Your task to perform on an android device: How much does a 2 bedroom apartment rent for in Miami? Image 0: 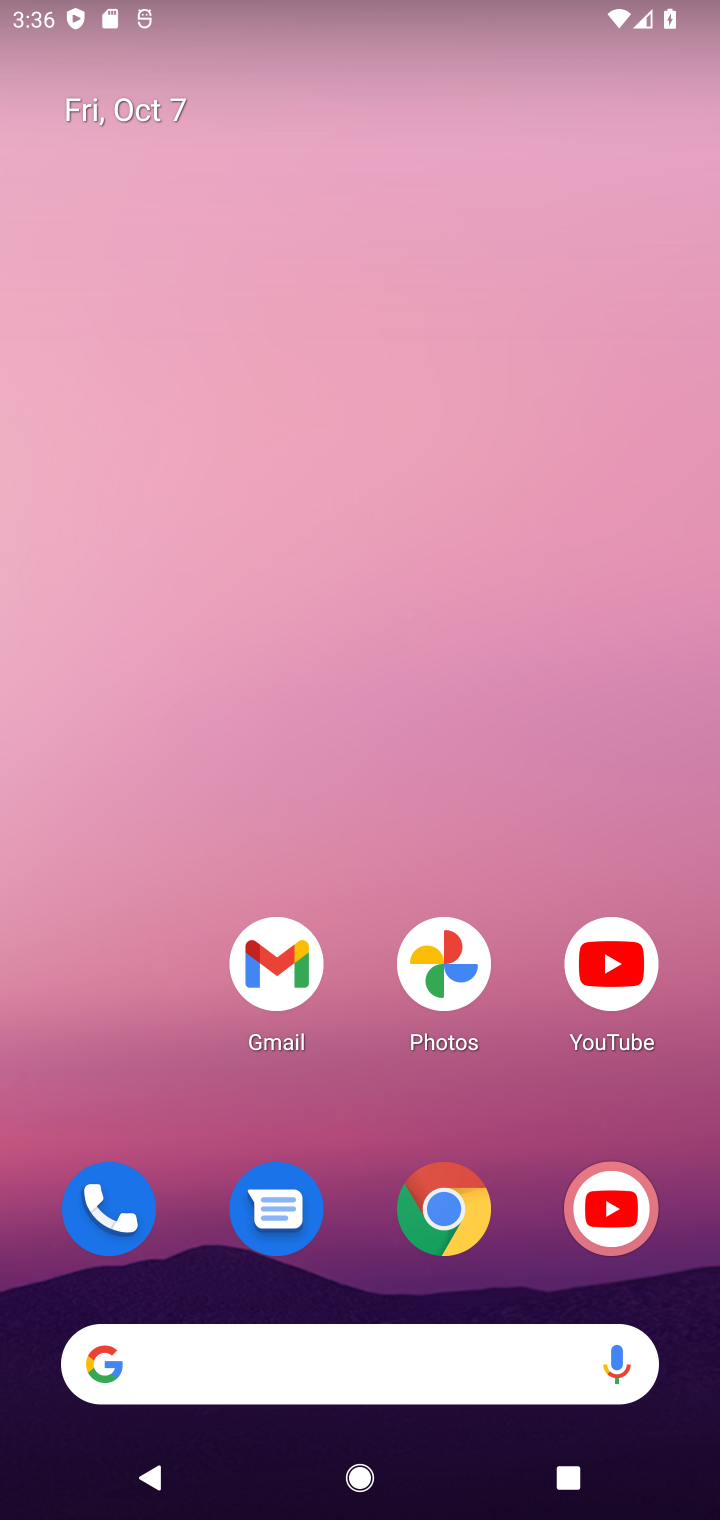
Step 0: press home button
Your task to perform on an android device: How much does a 2 bedroom apartment rent for in Miami? Image 1: 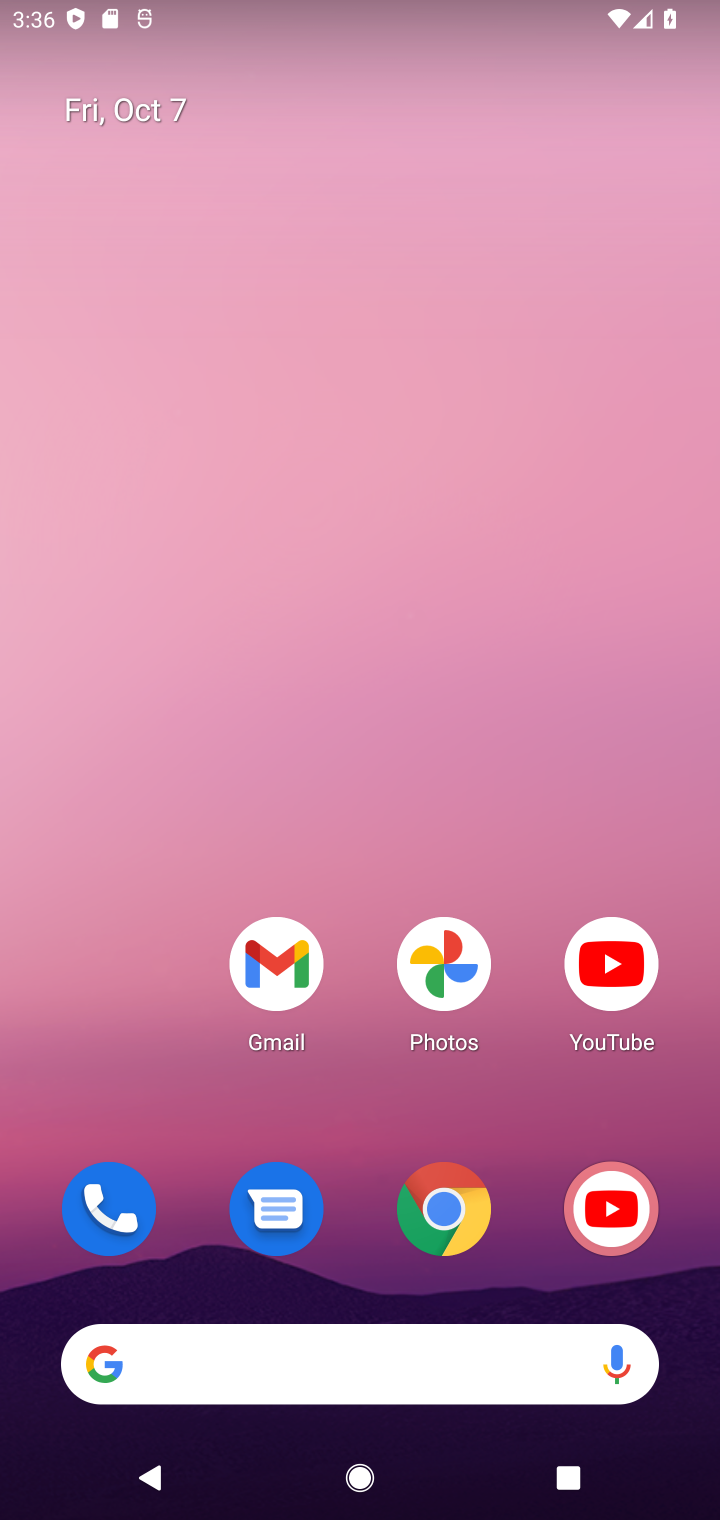
Step 1: click (418, 1371)
Your task to perform on an android device: How much does a 2 bedroom apartment rent for in Miami? Image 2: 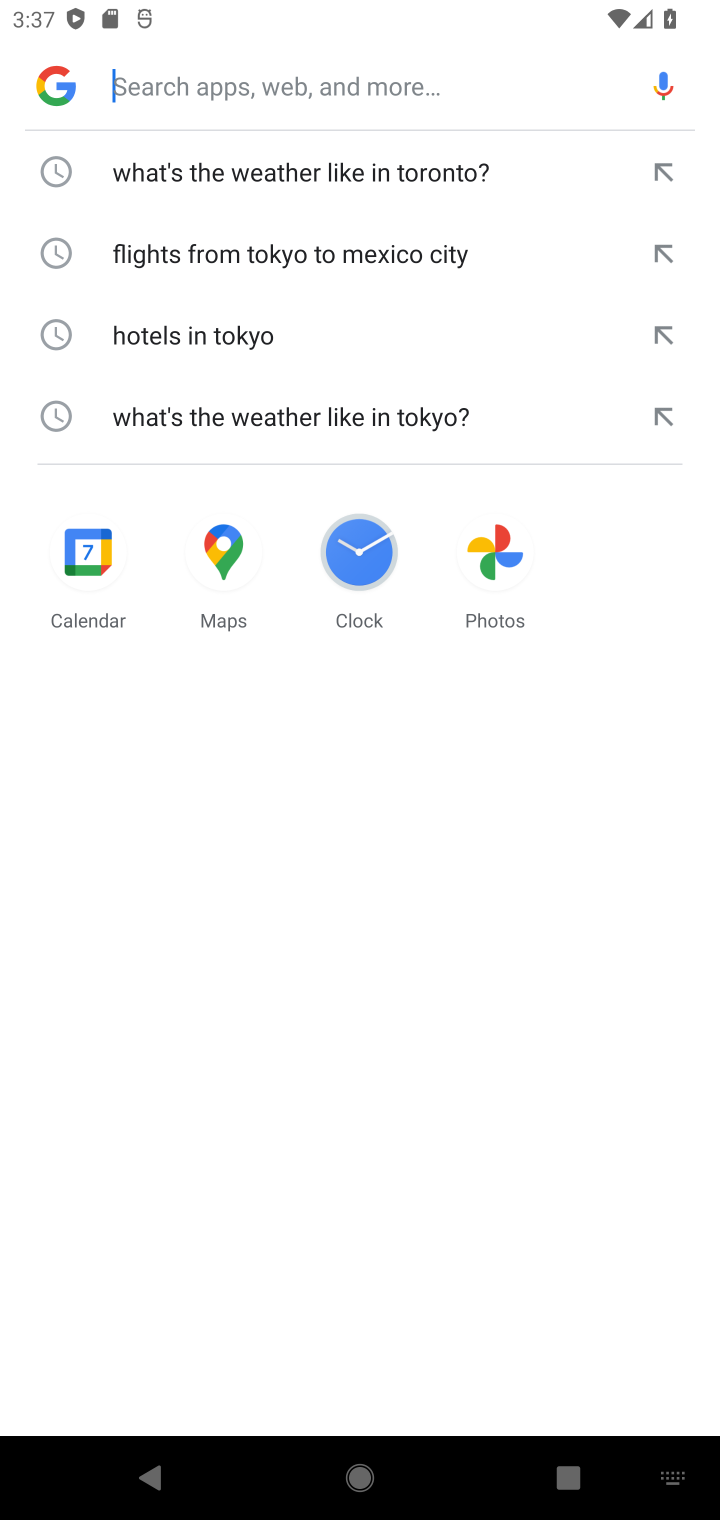
Step 2: press enter
Your task to perform on an android device: How much does a 2 bedroom apartment rent for in Miami? Image 3: 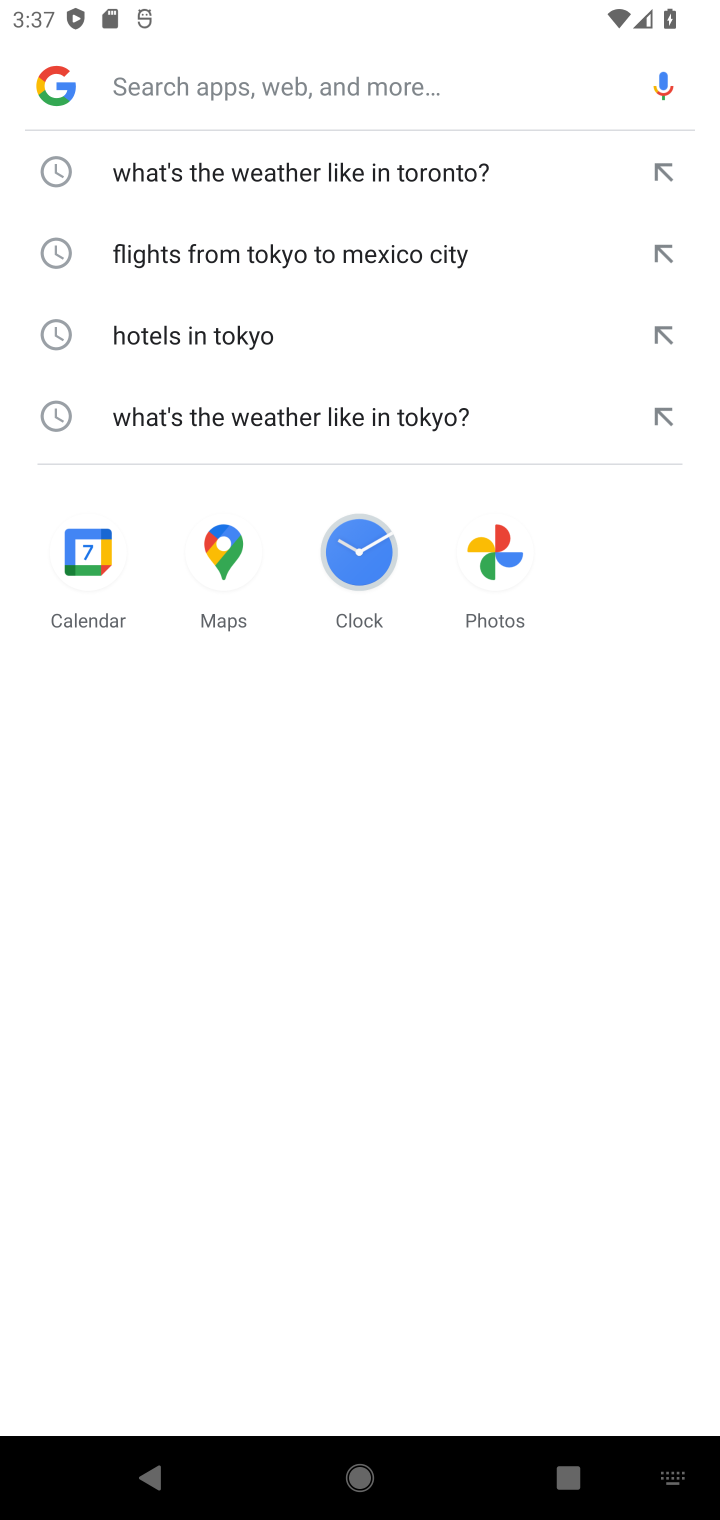
Step 3: type "How much does a 2 bedroom apartment rent for in Miami?"
Your task to perform on an android device: How much does a 2 bedroom apartment rent for in Miami? Image 4: 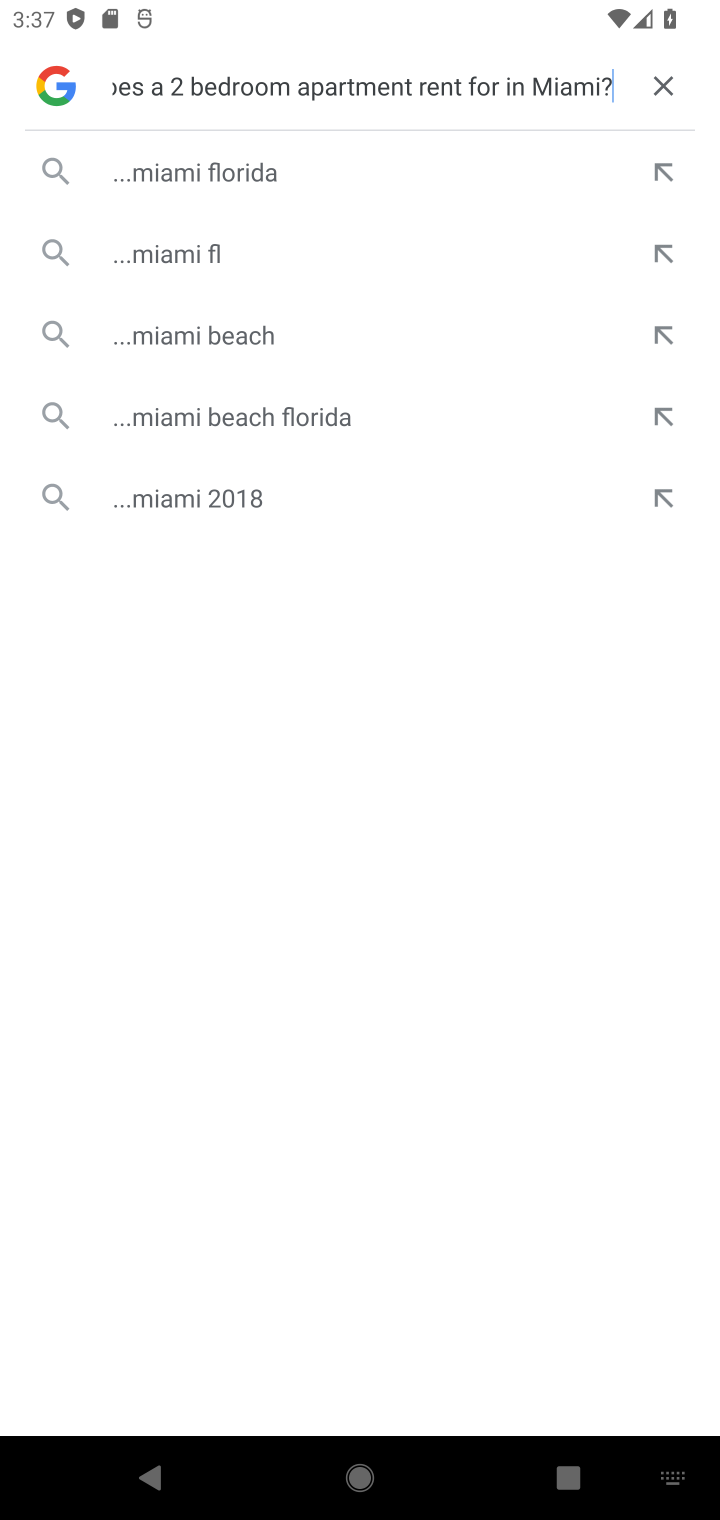
Step 4: press enter
Your task to perform on an android device: How much does a 2 bedroom apartment rent for in Miami? Image 5: 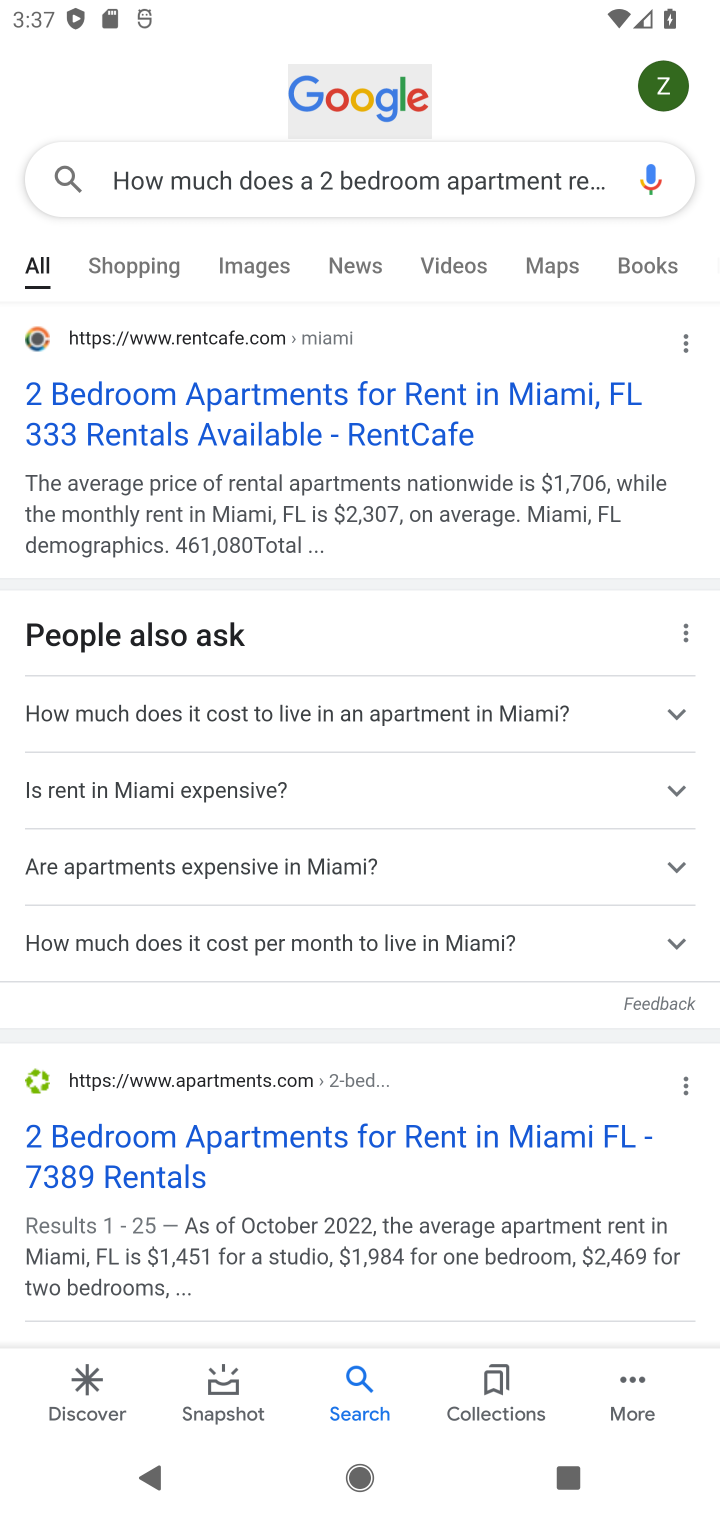
Step 5: click (432, 421)
Your task to perform on an android device: How much does a 2 bedroom apartment rent for in Miami? Image 6: 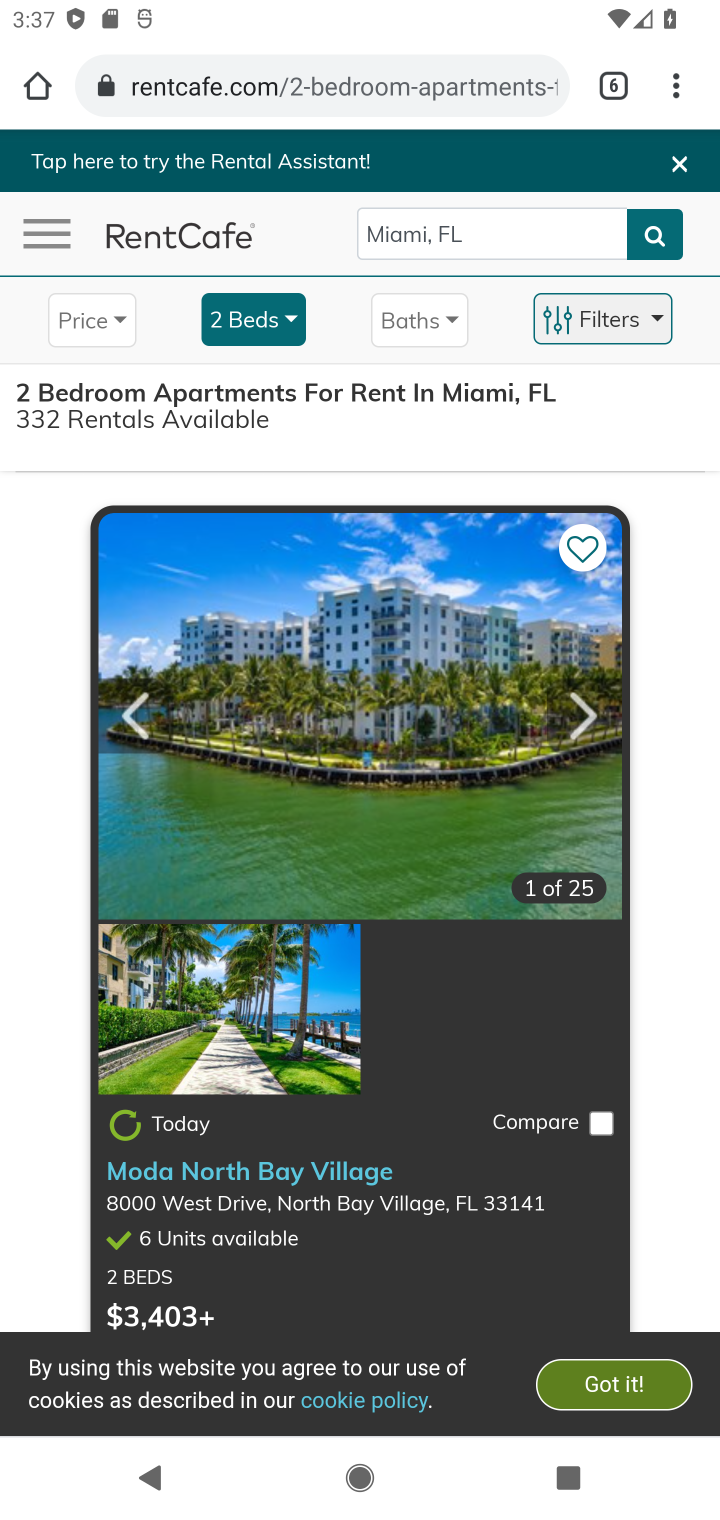
Step 6: task complete